Your task to perform on an android device: toggle javascript in the chrome app Image 0: 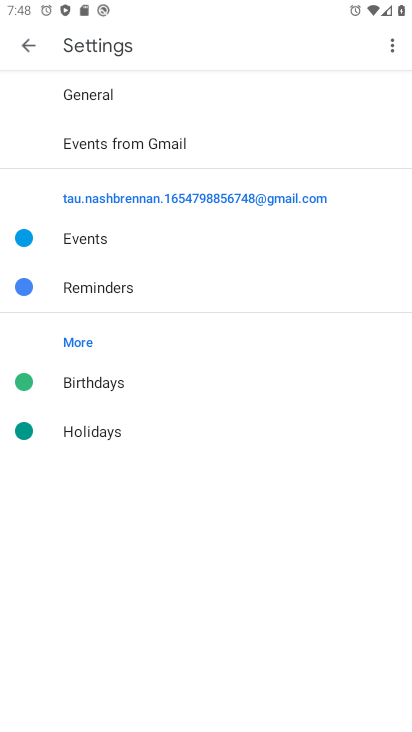
Step 0: press home button
Your task to perform on an android device: toggle javascript in the chrome app Image 1: 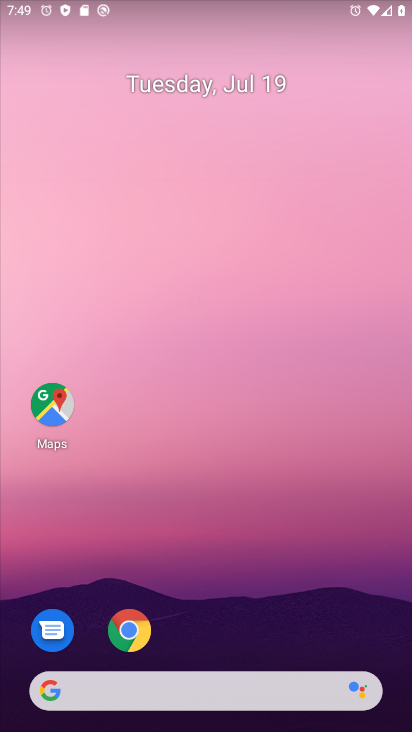
Step 1: drag from (207, 510) to (203, 256)
Your task to perform on an android device: toggle javascript in the chrome app Image 2: 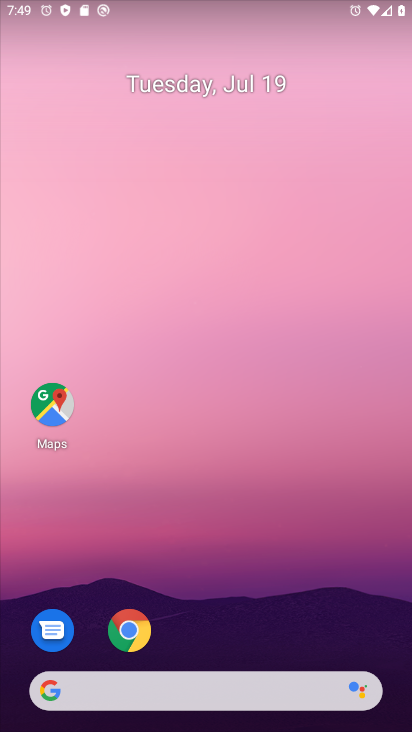
Step 2: drag from (264, 618) to (272, 231)
Your task to perform on an android device: toggle javascript in the chrome app Image 3: 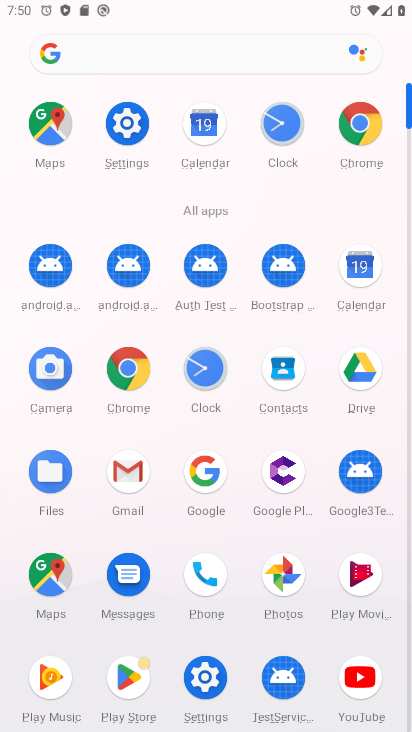
Step 3: click (129, 377)
Your task to perform on an android device: toggle javascript in the chrome app Image 4: 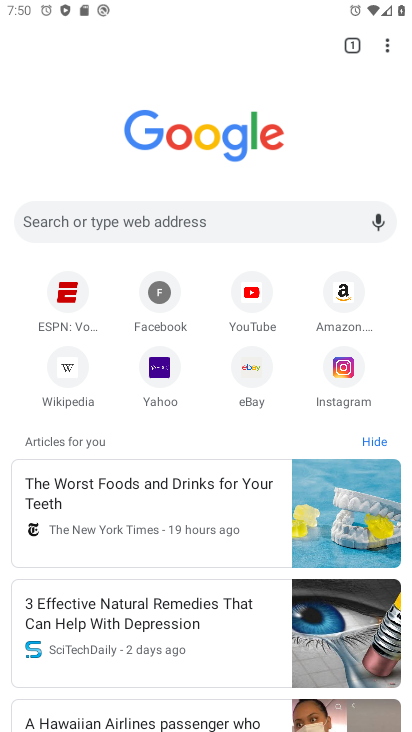
Step 4: task complete